Your task to perform on an android device: install app "Yahoo Mail" Image 0: 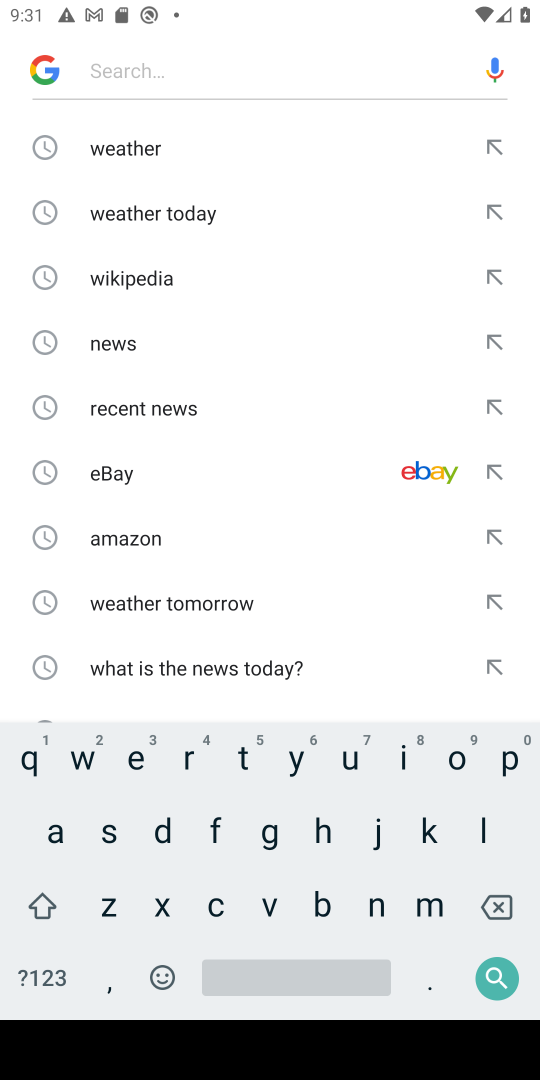
Step 0: press home button
Your task to perform on an android device: install app "Yahoo Mail" Image 1: 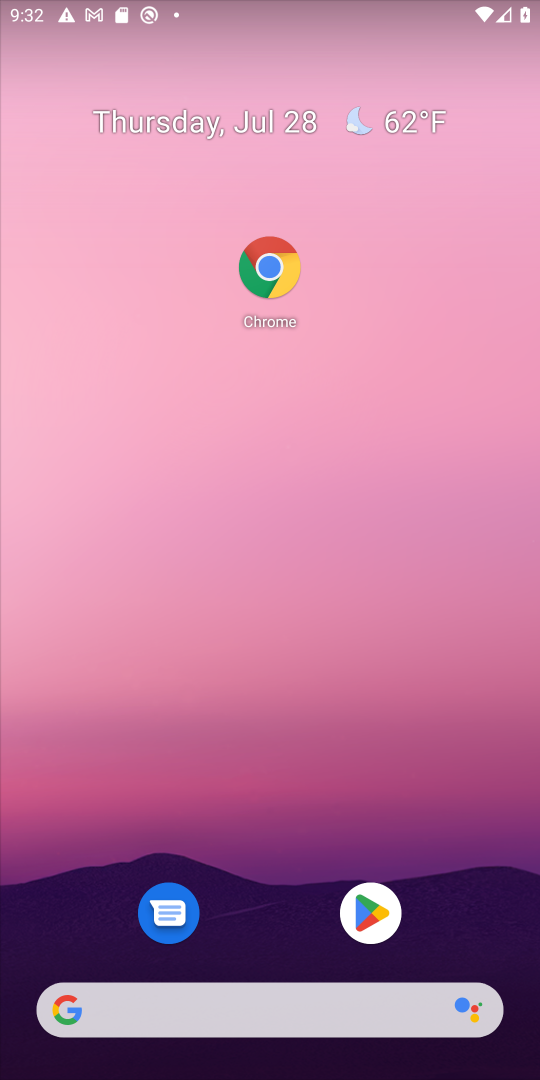
Step 1: press home button
Your task to perform on an android device: install app "Yahoo Mail" Image 2: 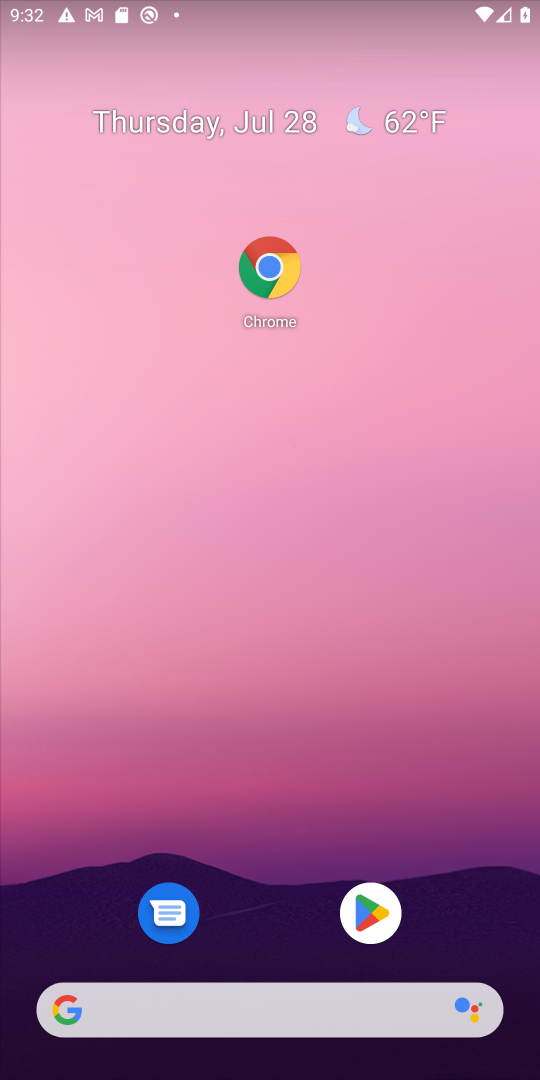
Step 2: drag from (415, 988) to (357, 259)
Your task to perform on an android device: install app "Yahoo Mail" Image 3: 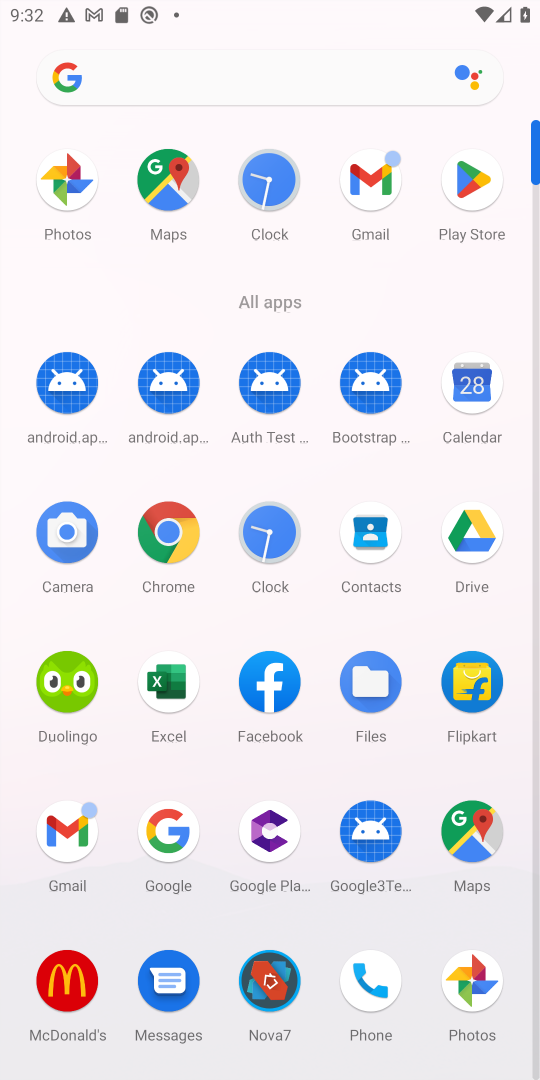
Step 3: click (469, 191)
Your task to perform on an android device: install app "Yahoo Mail" Image 4: 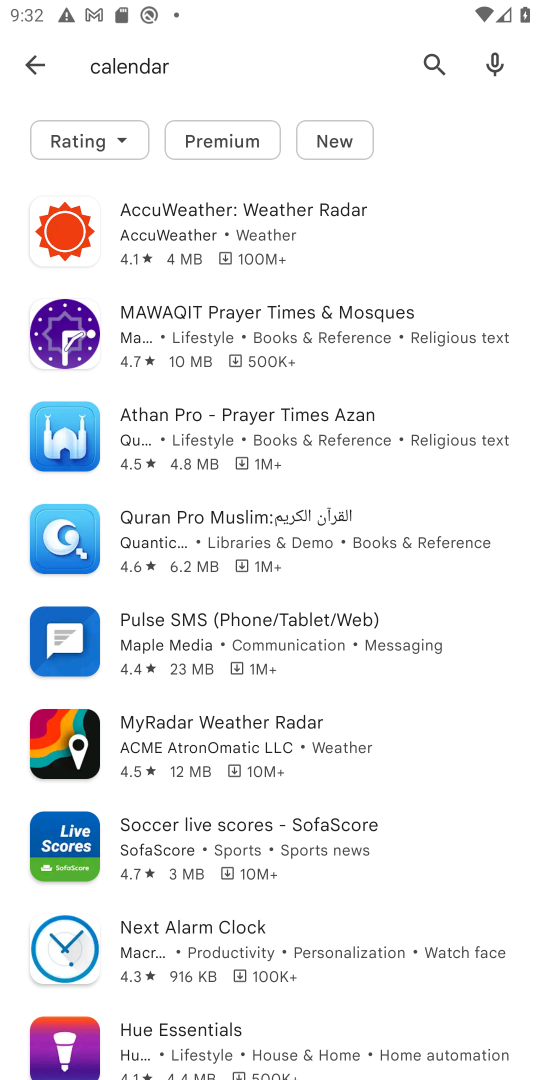
Step 4: click (437, 65)
Your task to perform on an android device: install app "Yahoo Mail" Image 5: 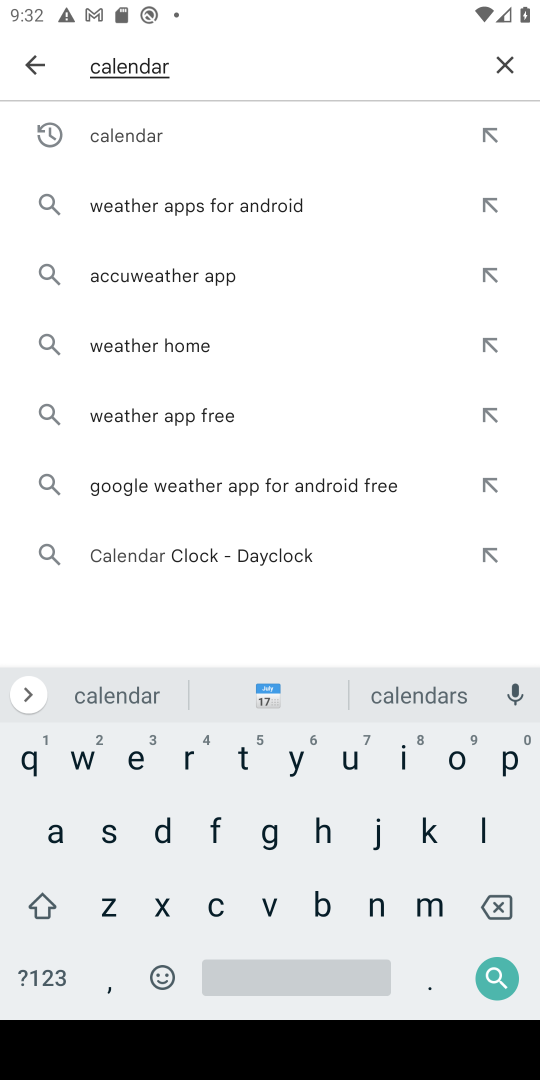
Step 5: click (503, 60)
Your task to perform on an android device: install app "Yahoo Mail" Image 6: 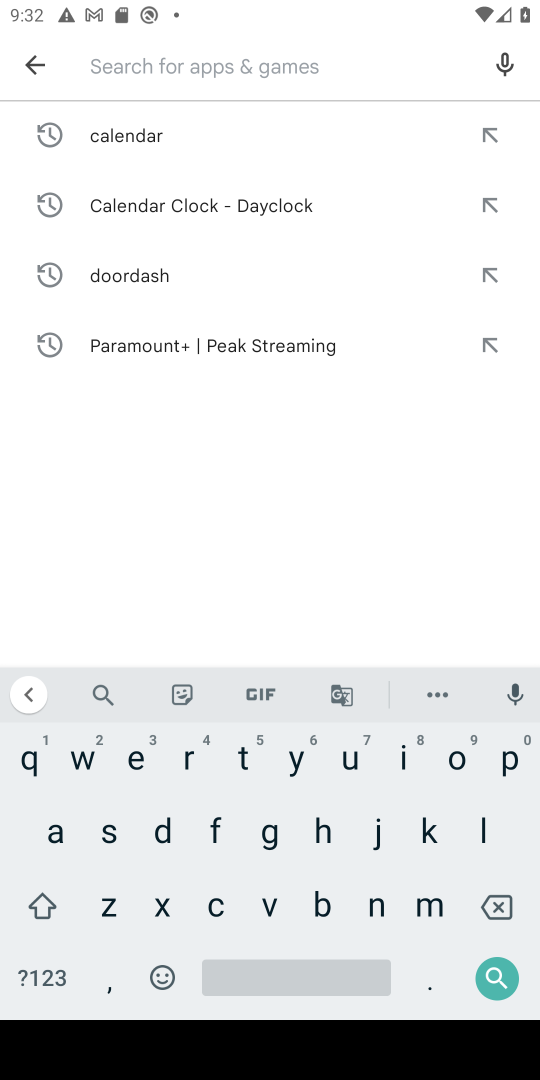
Step 6: click (297, 761)
Your task to perform on an android device: install app "Yahoo Mail" Image 7: 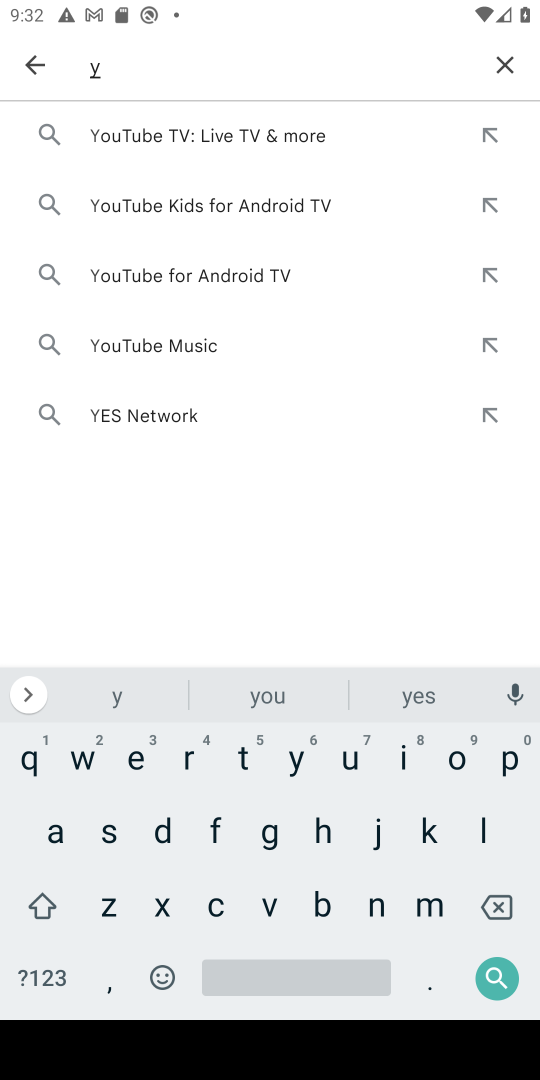
Step 7: click (55, 830)
Your task to perform on an android device: install app "Yahoo Mail" Image 8: 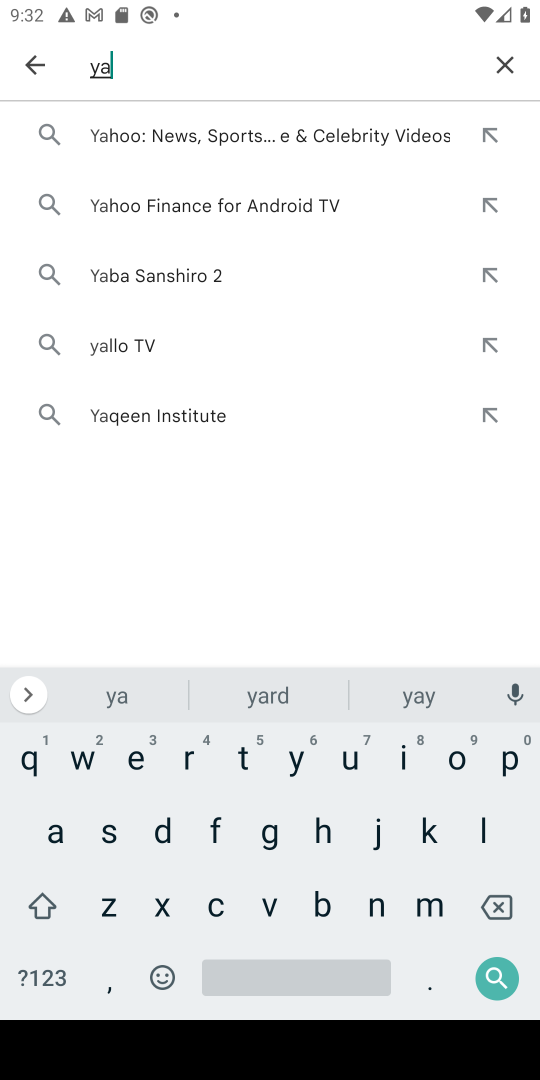
Step 8: click (319, 821)
Your task to perform on an android device: install app "Yahoo Mail" Image 9: 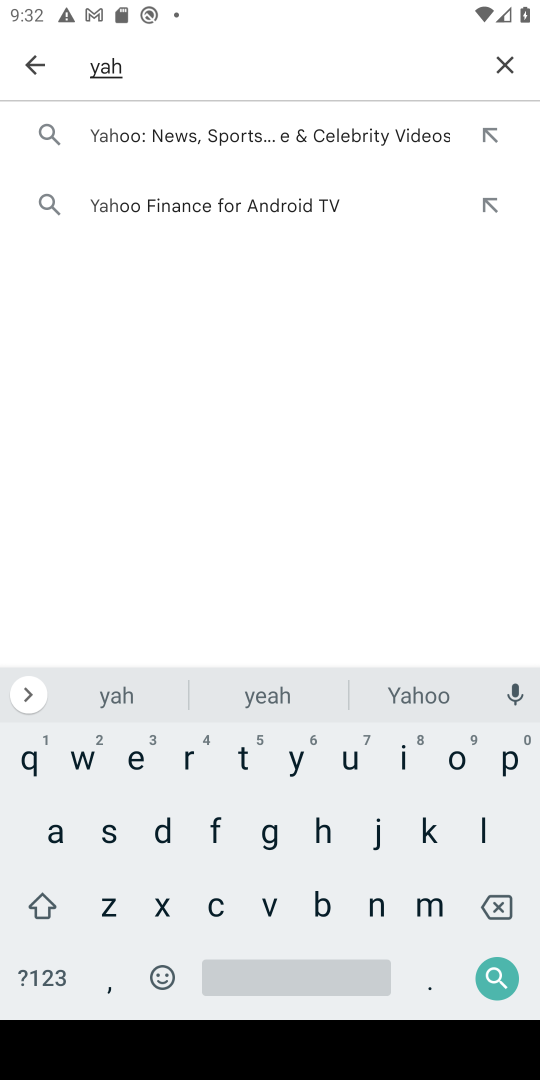
Step 9: click (394, 700)
Your task to perform on an android device: install app "Yahoo Mail" Image 10: 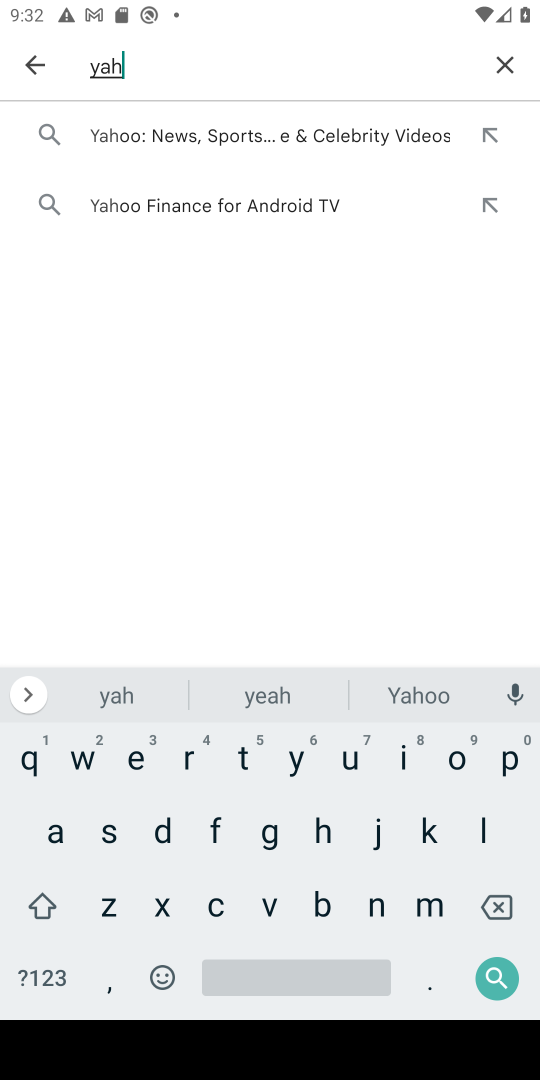
Step 10: click (426, 698)
Your task to perform on an android device: install app "Yahoo Mail" Image 11: 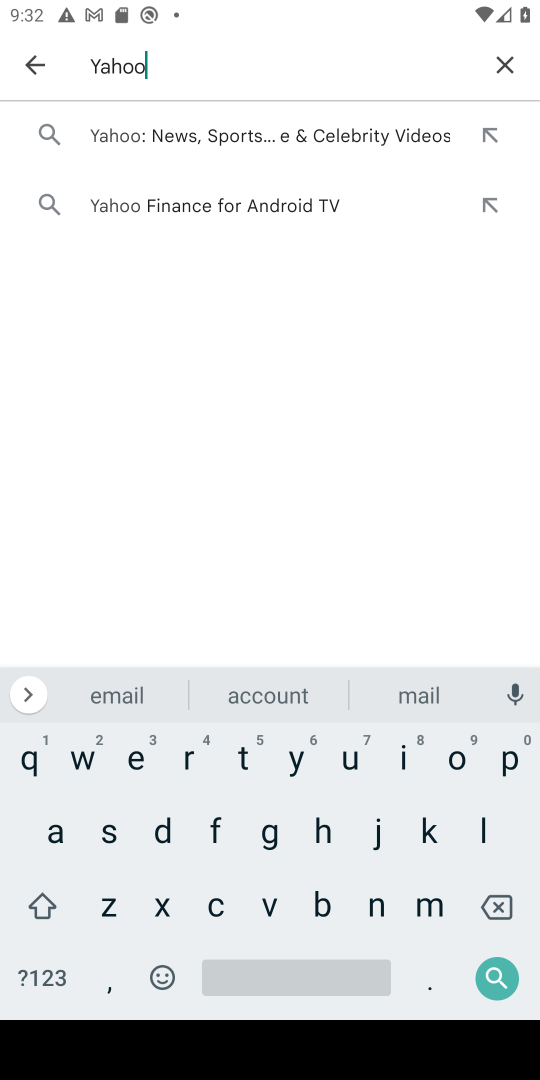
Step 11: click (426, 911)
Your task to perform on an android device: install app "Yahoo Mail" Image 12: 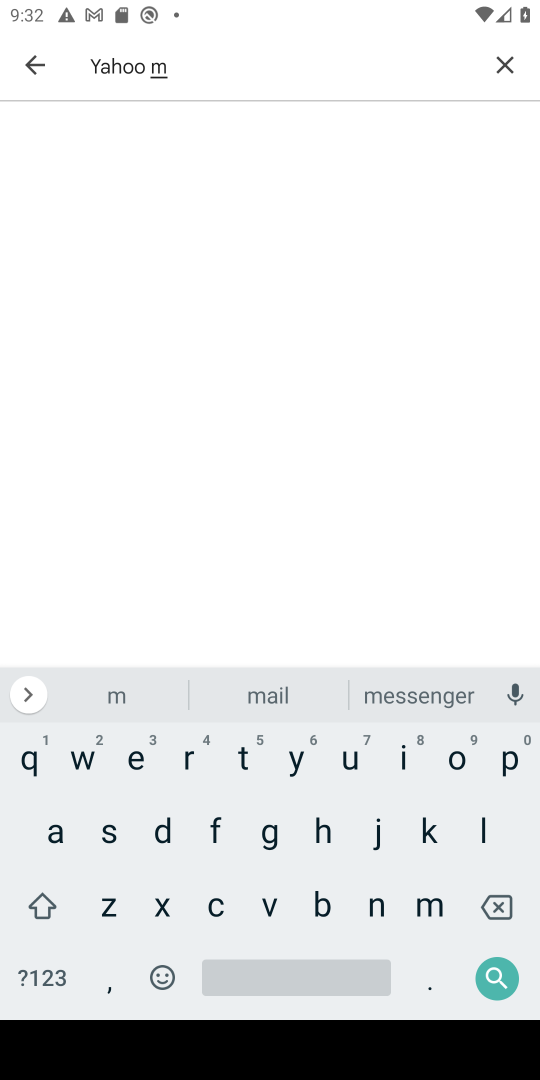
Step 12: click (271, 688)
Your task to perform on an android device: install app "Yahoo Mail" Image 13: 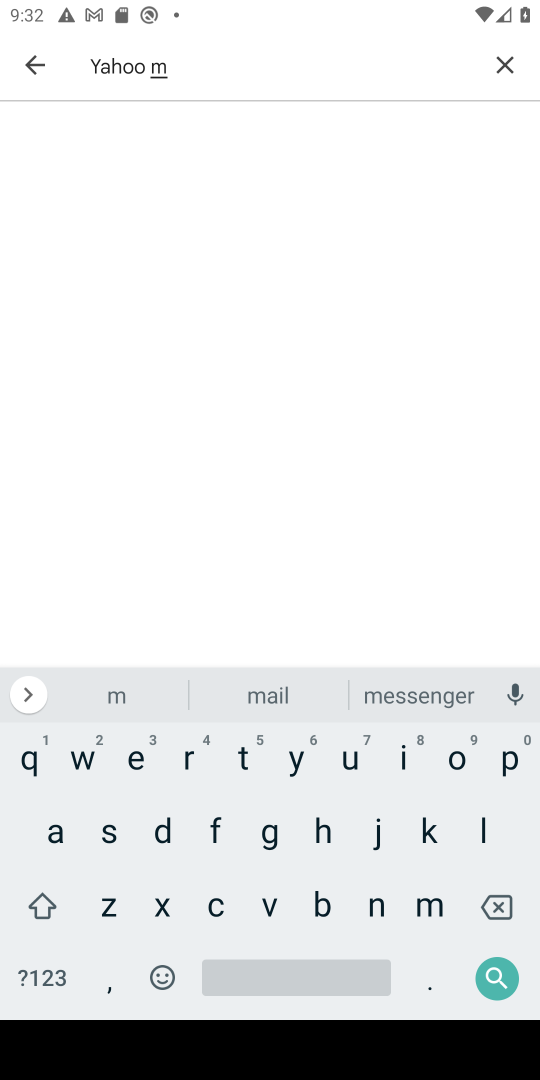
Step 13: click (317, 710)
Your task to perform on an android device: install app "Yahoo Mail" Image 14: 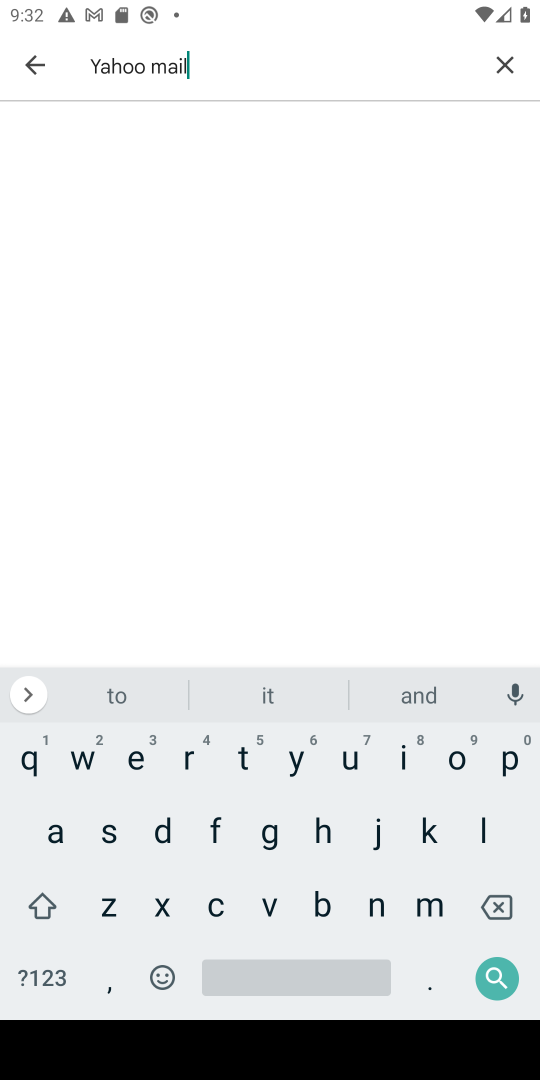
Step 14: click (298, 719)
Your task to perform on an android device: install app "Yahoo Mail" Image 15: 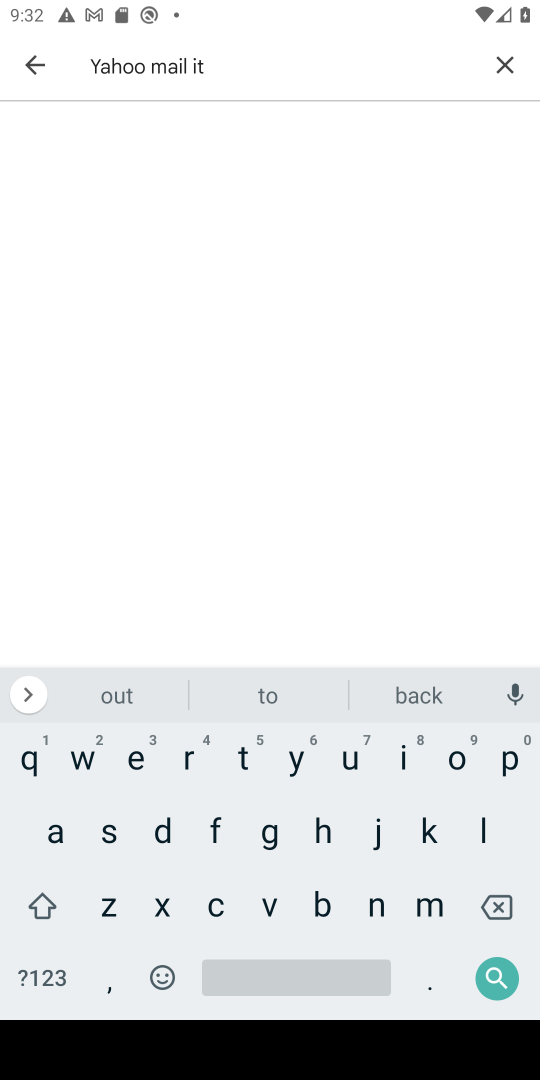
Step 15: click (504, 919)
Your task to perform on an android device: install app "Yahoo Mail" Image 16: 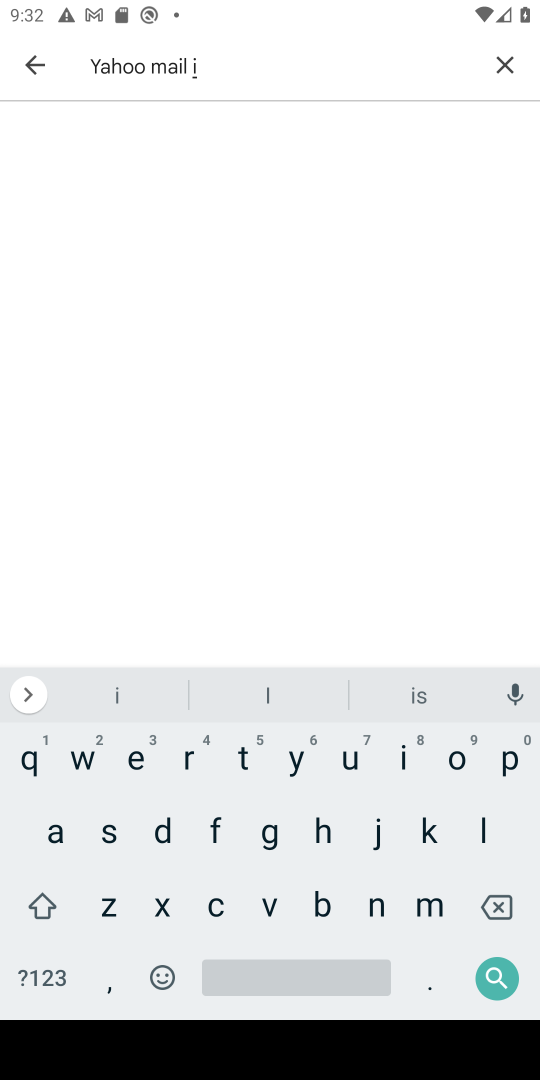
Step 16: click (497, 905)
Your task to perform on an android device: install app "Yahoo Mail" Image 17: 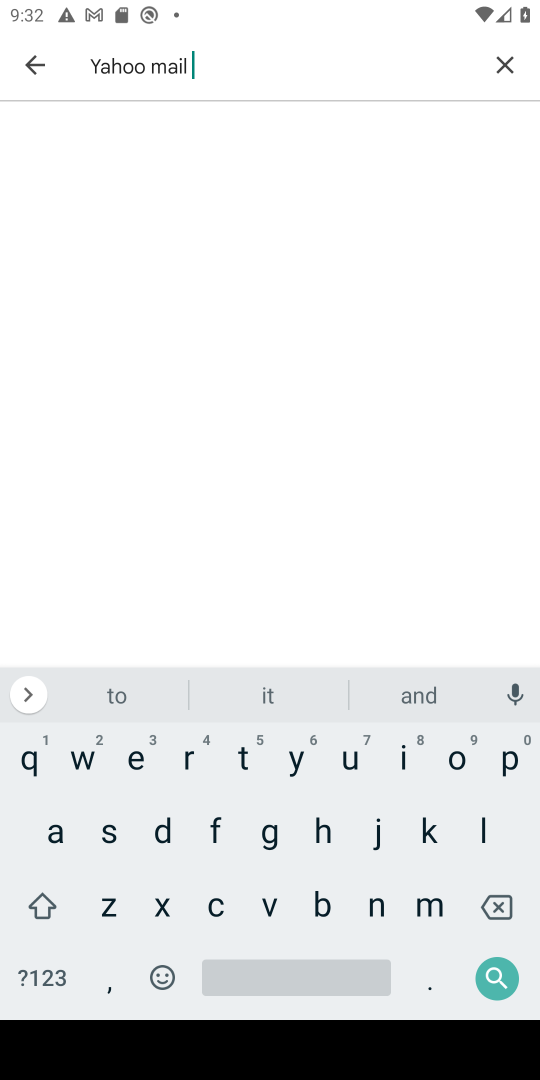
Step 17: click (488, 998)
Your task to perform on an android device: install app "Yahoo Mail" Image 18: 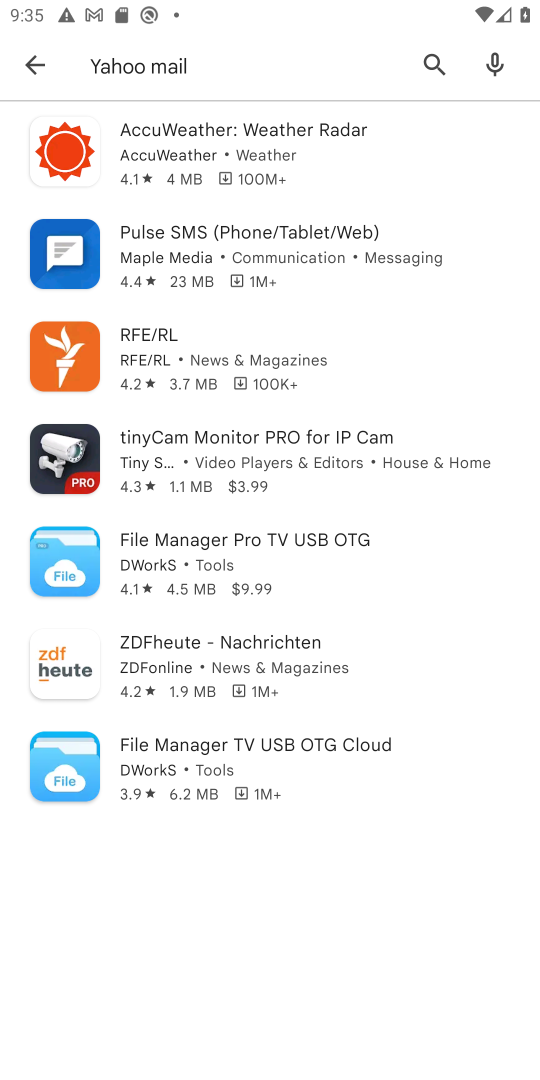
Step 18: task complete